Your task to perform on an android device: add a contact in the contacts app Image 0: 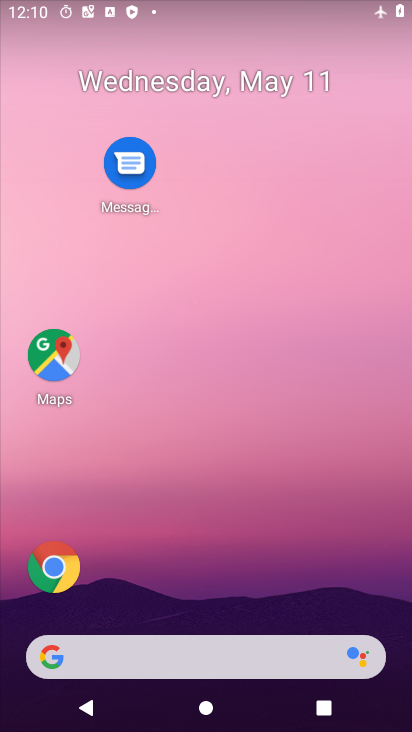
Step 0: drag from (231, 530) to (241, 12)
Your task to perform on an android device: add a contact in the contacts app Image 1: 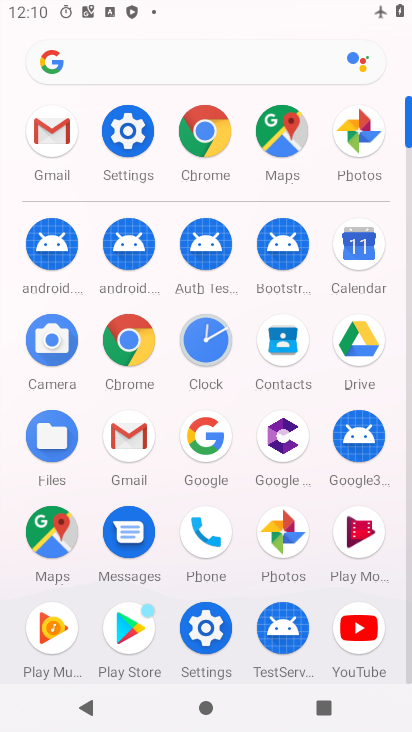
Step 1: click (276, 369)
Your task to perform on an android device: add a contact in the contacts app Image 2: 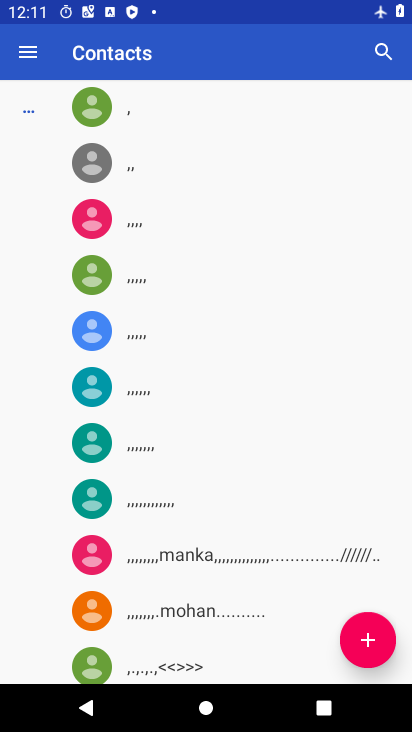
Step 2: click (376, 649)
Your task to perform on an android device: add a contact in the contacts app Image 3: 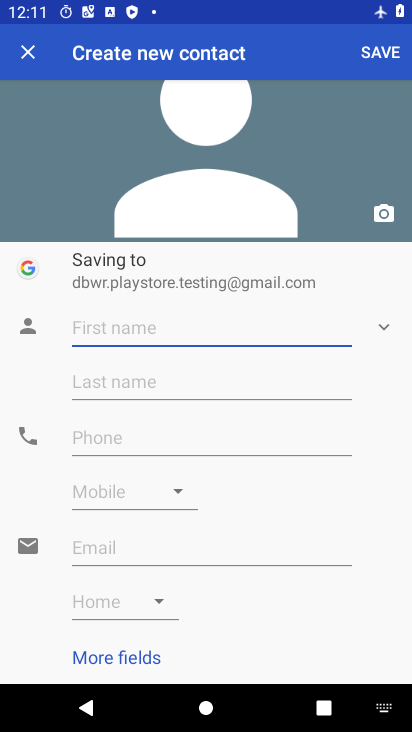
Step 3: type "dfddf"
Your task to perform on an android device: add a contact in the contacts app Image 4: 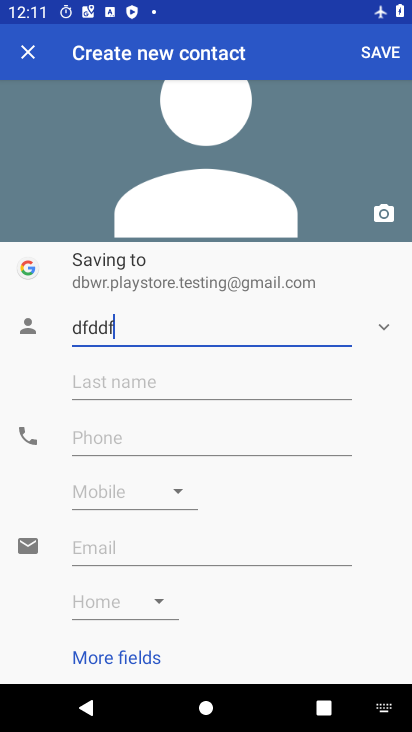
Step 4: type ""
Your task to perform on an android device: add a contact in the contacts app Image 5: 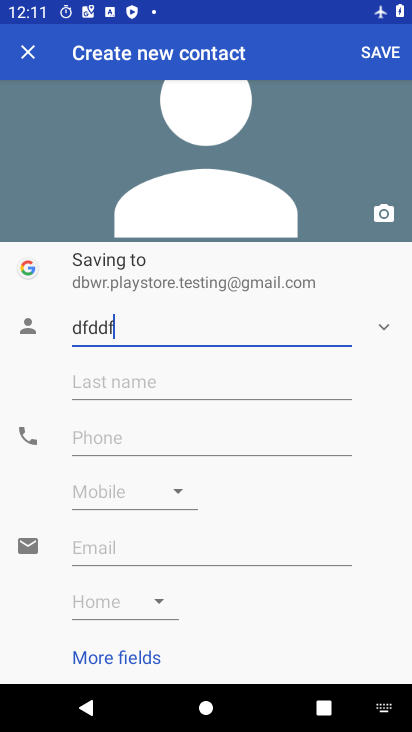
Step 5: click (385, 51)
Your task to perform on an android device: add a contact in the contacts app Image 6: 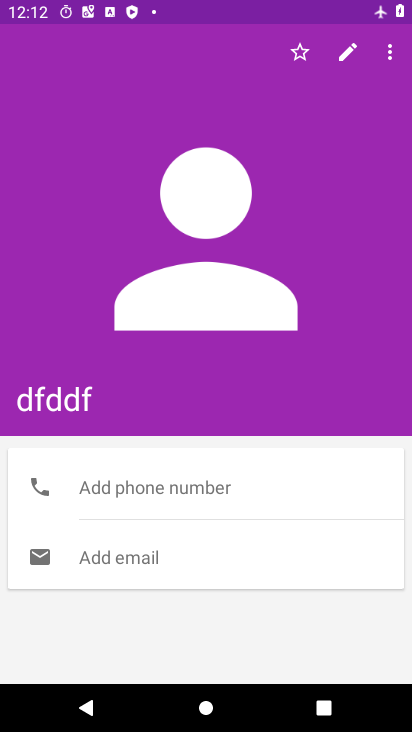
Step 6: task complete